Your task to perform on an android device: When is my next appointment? Image 0: 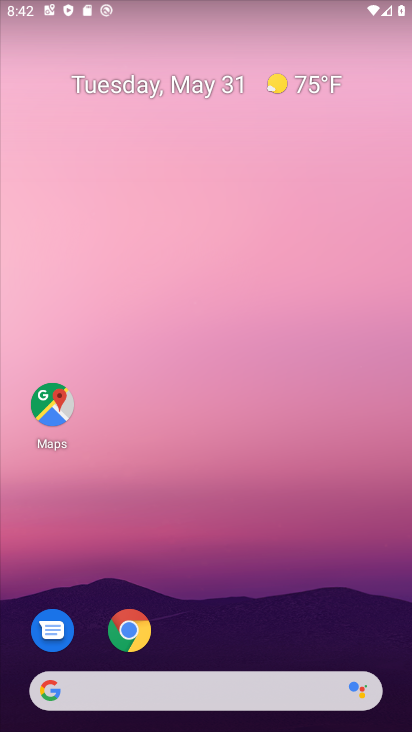
Step 0: drag from (220, 614) to (235, 178)
Your task to perform on an android device: When is my next appointment? Image 1: 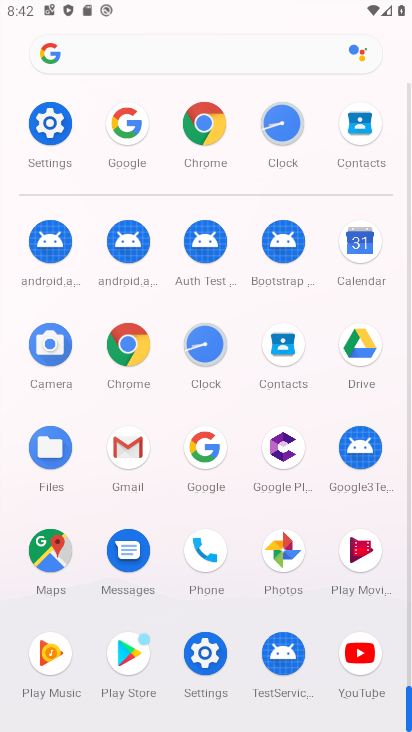
Step 1: click (371, 260)
Your task to perform on an android device: When is my next appointment? Image 2: 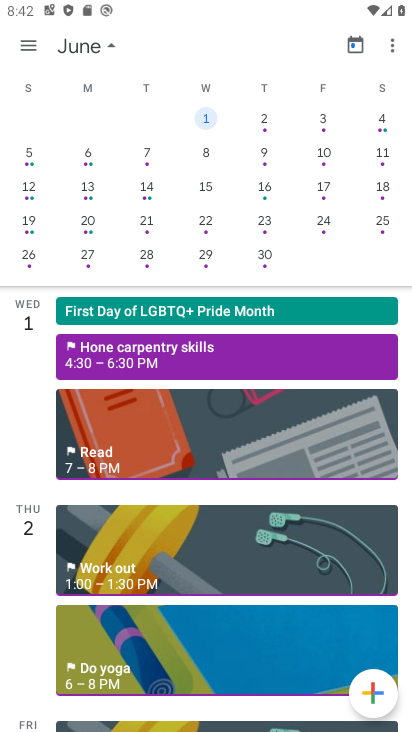
Step 2: drag from (56, 230) to (380, 233)
Your task to perform on an android device: When is my next appointment? Image 3: 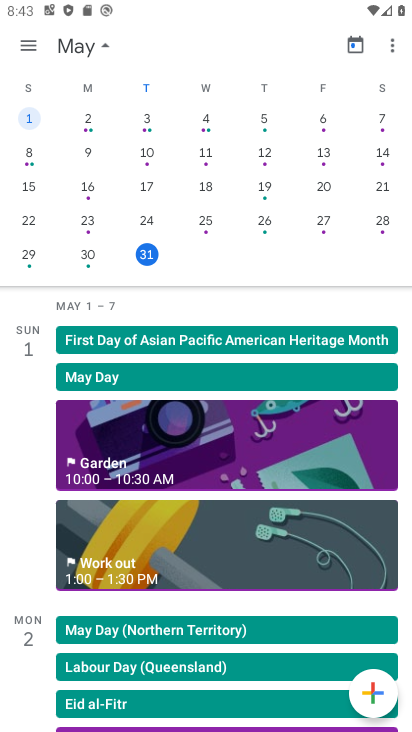
Step 3: click (30, 42)
Your task to perform on an android device: When is my next appointment? Image 4: 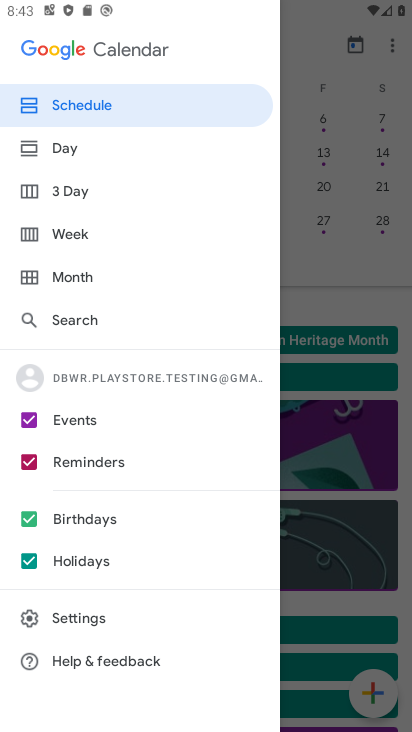
Step 4: drag from (115, 464) to (152, 200)
Your task to perform on an android device: When is my next appointment? Image 5: 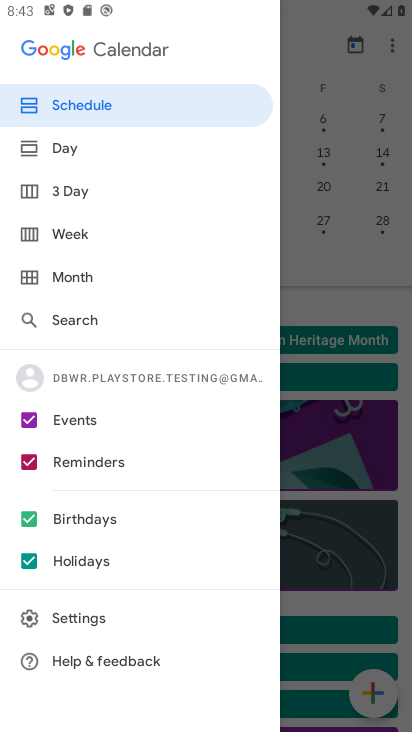
Step 5: click (43, 553)
Your task to perform on an android device: When is my next appointment? Image 6: 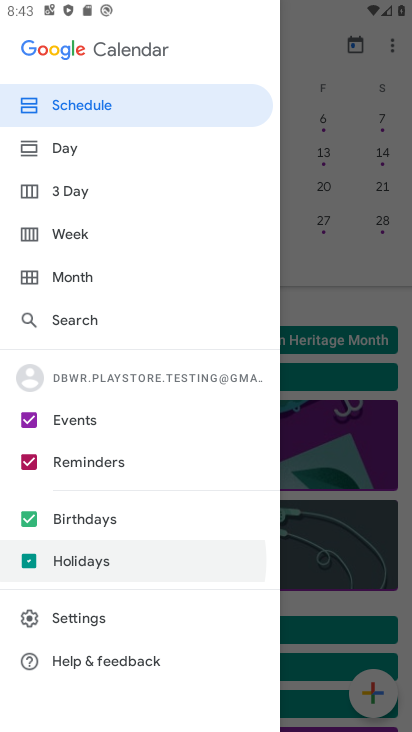
Step 6: click (48, 523)
Your task to perform on an android device: When is my next appointment? Image 7: 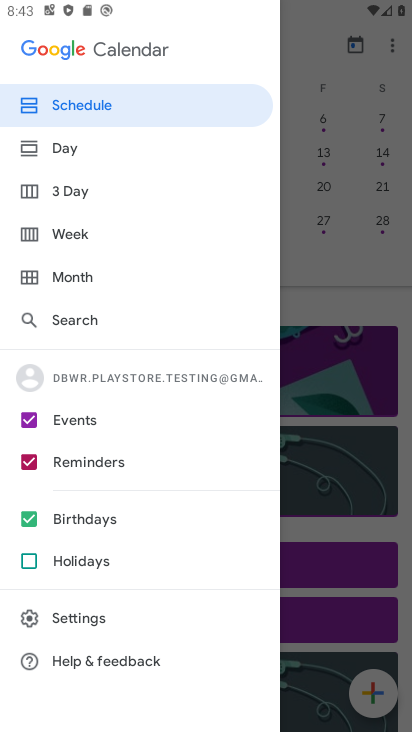
Step 7: click (29, 512)
Your task to perform on an android device: When is my next appointment? Image 8: 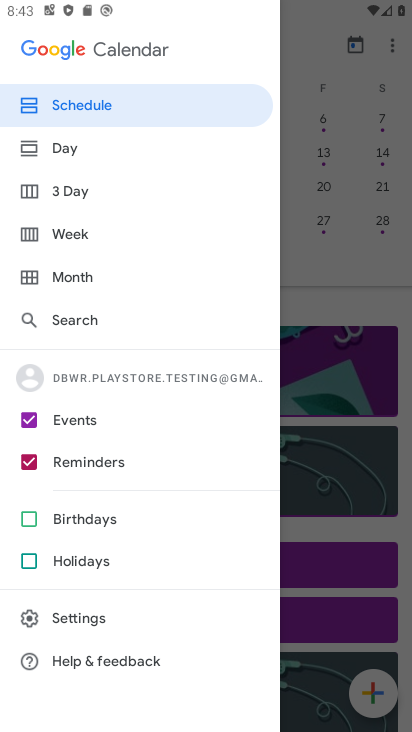
Step 8: click (364, 285)
Your task to perform on an android device: When is my next appointment? Image 9: 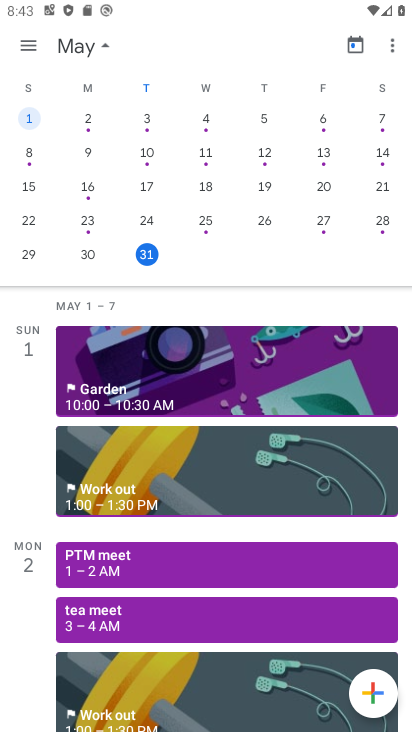
Step 9: task complete